Your task to perform on an android device: toggle data saver in the chrome app Image 0: 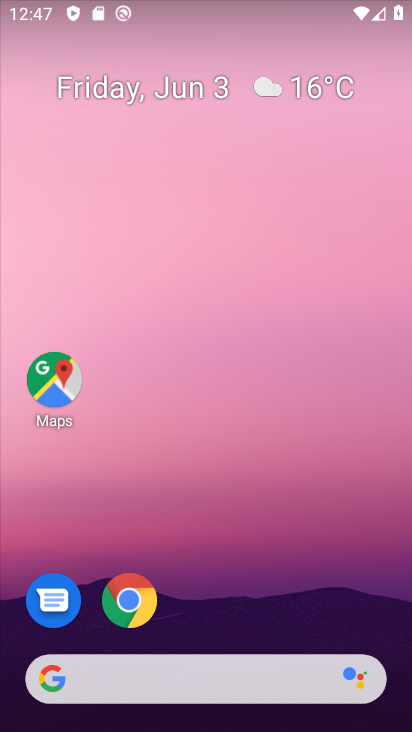
Step 0: drag from (250, 338) to (219, 32)
Your task to perform on an android device: toggle data saver in the chrome app Image 1: 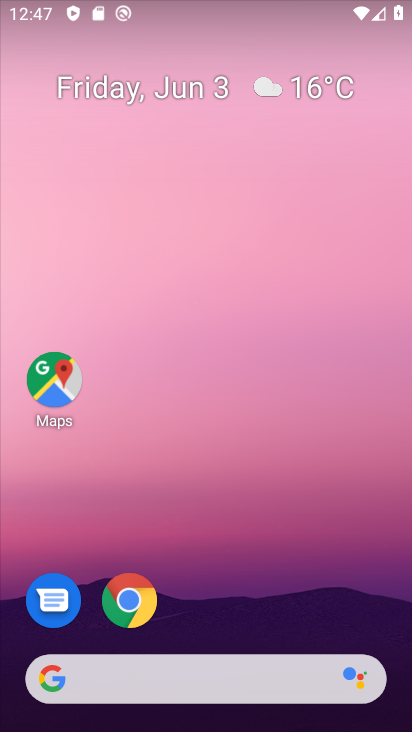
Step 1: drag from (215, 497) to (172, 6)
Your task to perform on an android device: toggle data saver in the chrome app Image 2: 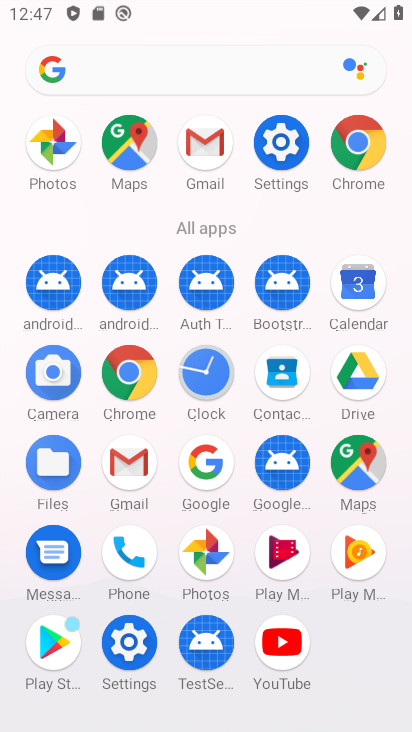
Step 2: click (358, 138)
Your task to perform on an android device: toggle data saver in the chrome app Image 3: 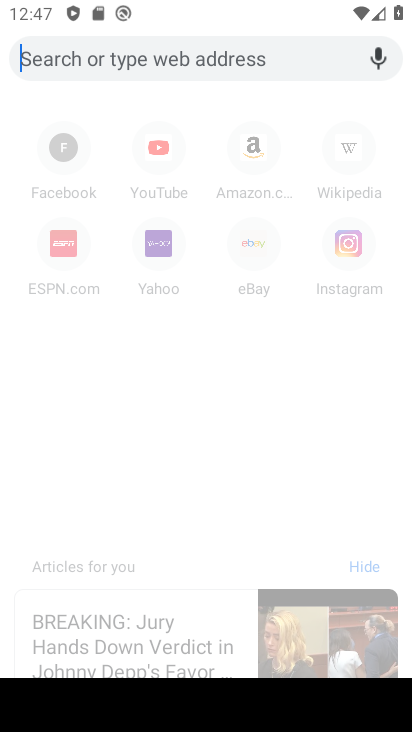
Step 3: press back button
Your task to perform on an android device: toggle data saver in the chrome app Image 4: 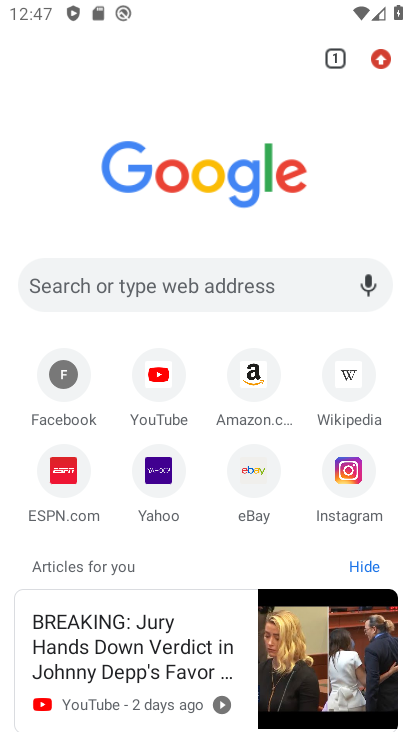
Step 4: drag from (376, 57) to (176, 572)
Your task to perform on an android device: toggle data saver in the chrome app Image 5: 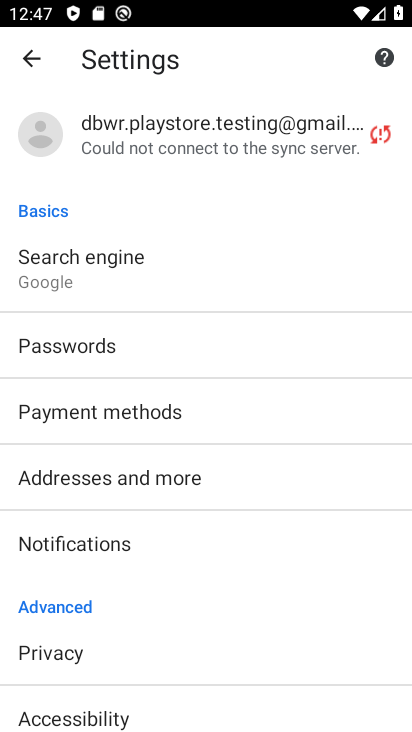
Step 5: drag from (214, 571) to (225, 203)
Your task to perform on an android device: toggle data saver in the chrome app Image 6: 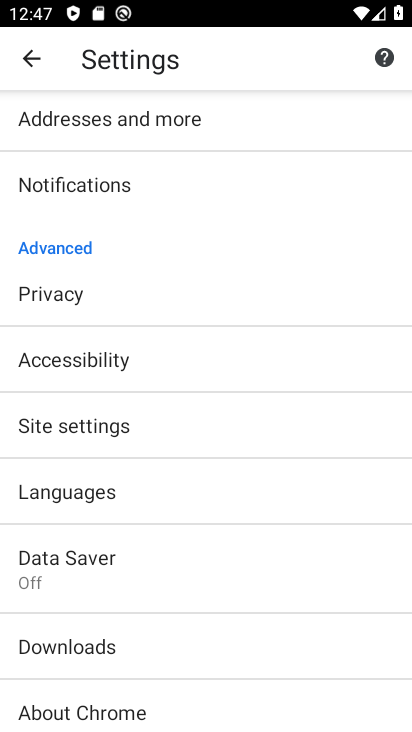
Step 6: click (121, 571)
Your task to perform on an android device: toggle data saver in the chrome app Image 7: 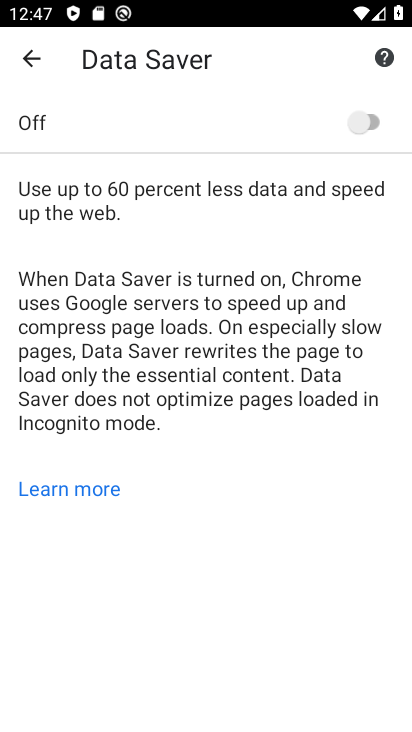
Step 7: click (363, 123)
Your task to perform on an android device: toggle data saver in the chrome app Image 8: 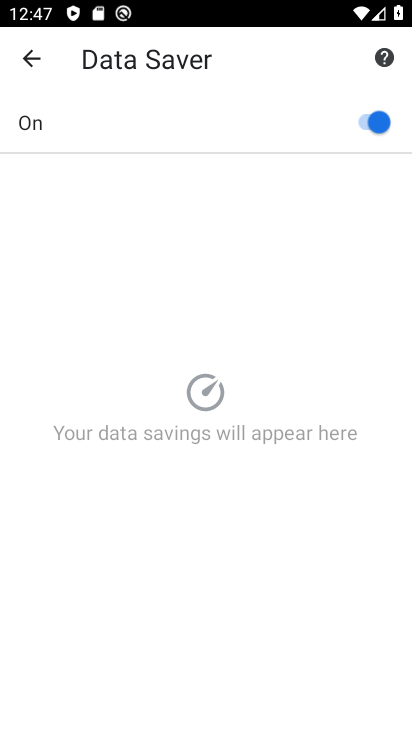
Step 8: task complete